Your task to perform on an android device: Open the phone app and click the voicemail tab. Image 0: 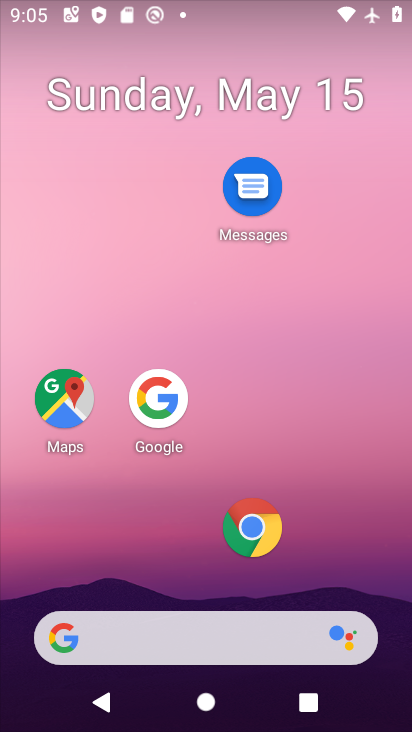
Step 0: drag from (181, 640) to (324, 247)
Your task to perform on an android device: Open the phone app and click the voicemail tab. Image 1: 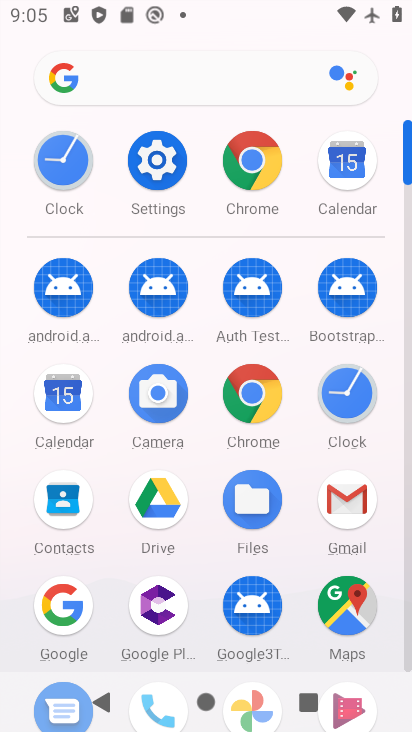
Step 1: drag from (193, 656) to (351, 267)
Your task to perform on an android device: Open the phone app and click the voicemail tab. Image 2: 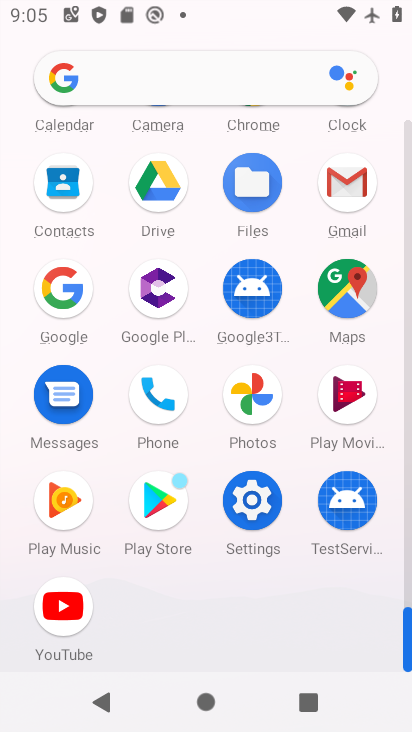
Step 2: click (168, 408)
Your task to perform on an android device: Open the phone app and click the voicemail tab. Image 3: 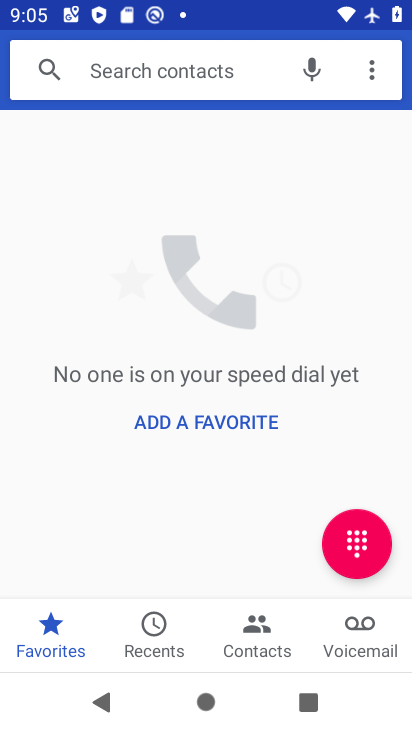
Step 3: click (367, 645)
Your task to perform on an android device: Open the phone app and click the voicemail tab. Image 4: 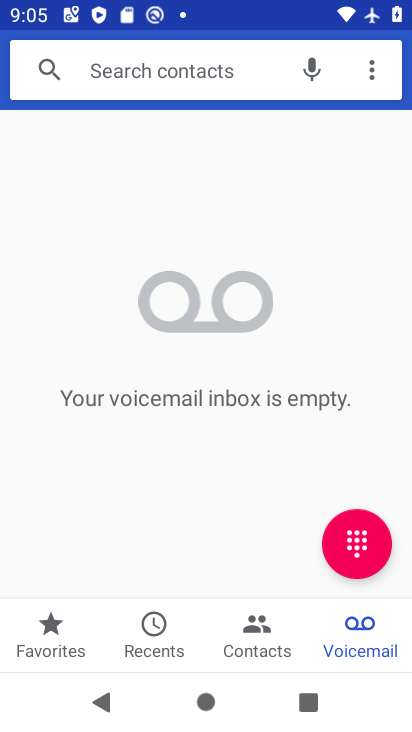
Step 4: task complete